Your task to perform on an android device: open chrome and create a bookmark for the current page Image 0: 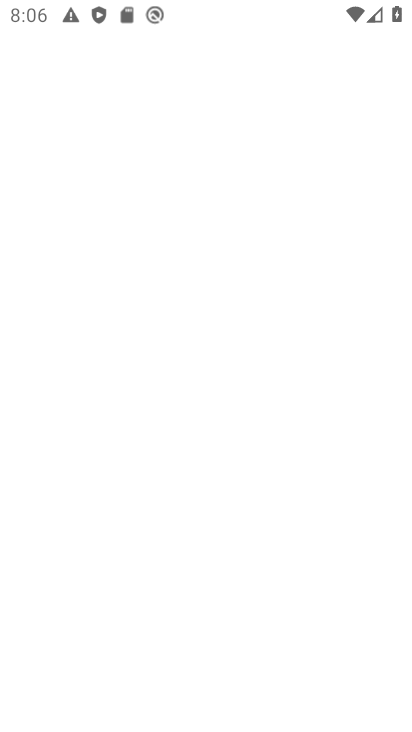
Step 0: press back button
Your task to perform on an android device: open chrome and create a bookmark for the current page Image 1: 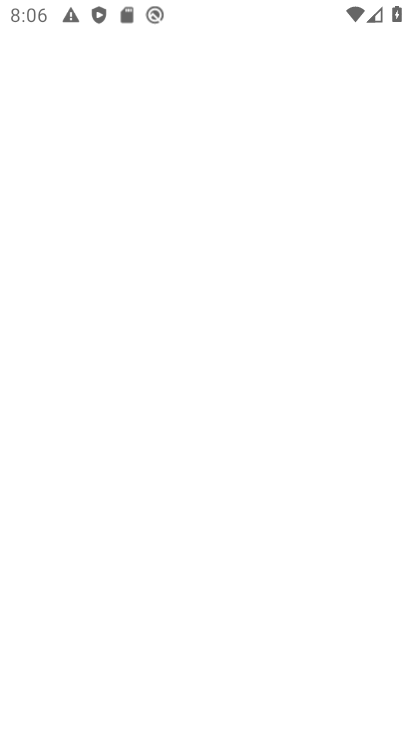
Step 1: click (123, 174)
Your task to perform on an android device: open chrome and create a bookmark for the current page Image 2: 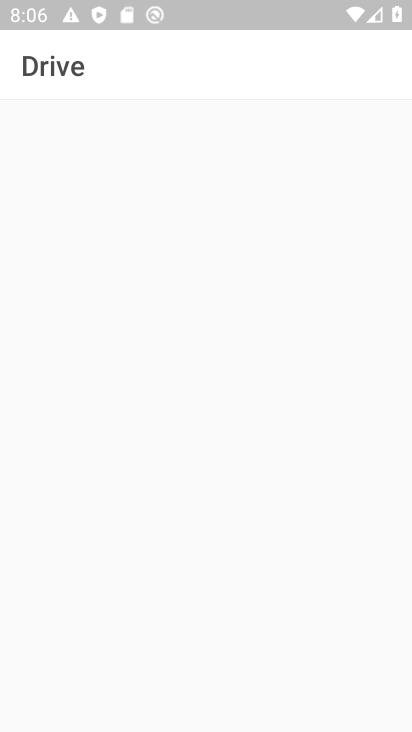
Step 2: press back button
Your task to perform on an android device: open chrome and create a bookmark for the current page Image 3: 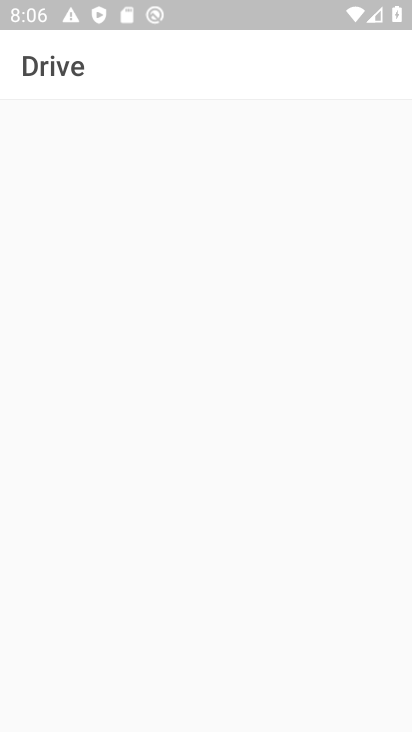
Step 3: press home button
Your task to perform on an android device: open chrome and create a bookmark for the current page Image 4: 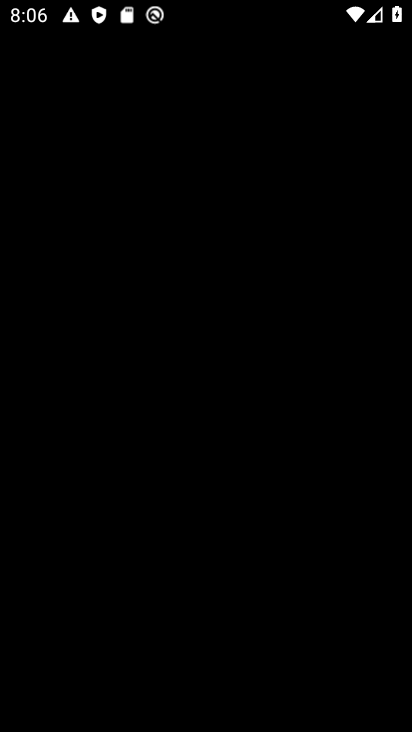
Step 4: press back button
Your task to perform on an android device: open chrome and create a bookmark for the current page Image 5: 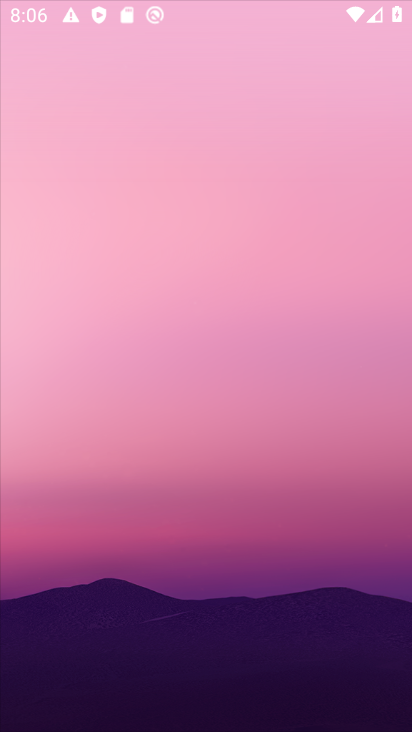
Step 5: press home button
Your task to perform on an android device: open chrome and create a bookmark for the current page Image 6: 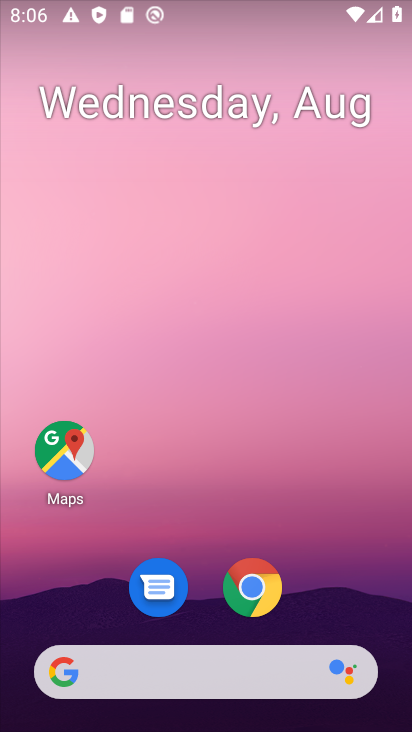
Step 6: drag from (181, 533) to (67, 97)
Your task to perform on an android device: open chrome and create a bookmark for the current page Image 7: 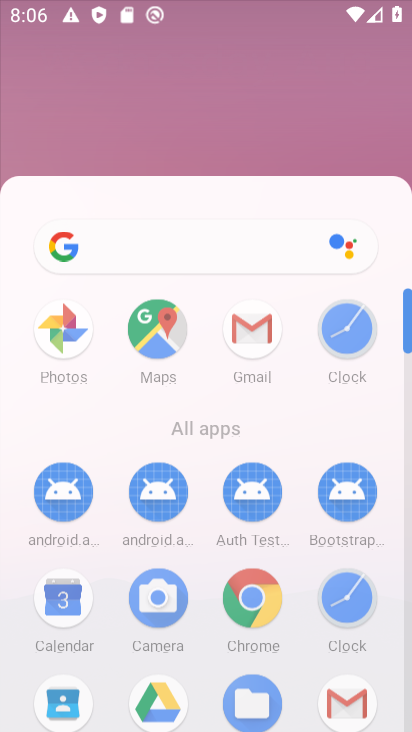
Step 7: drag from (156, 557) to (66, 95)
Your task to perform on an android device: open chrome and create a bookmark for the current page Image 8: 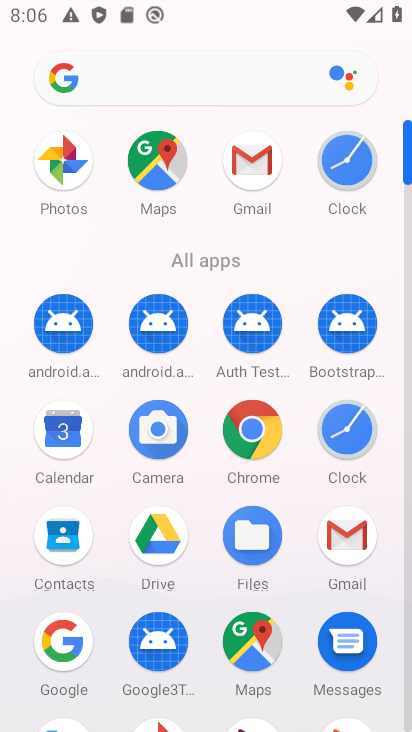
Step 8: drag from (157, 595) to (123, 197)
Your task to perform on an android device: open chrome and create a bookmark for the current page Image 9: 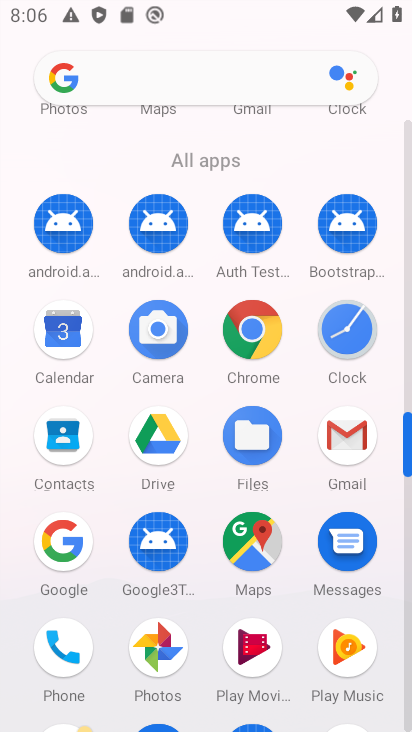
Step 9: click (260, 328)
Your task to perform on an android device: open chrome and create a bookmark for the current page Image 10: 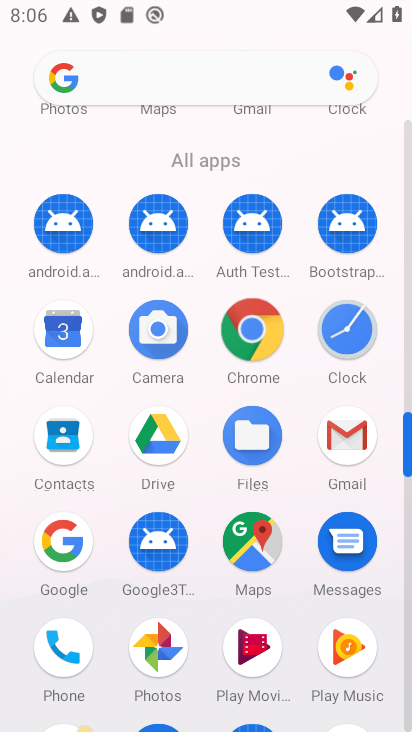
Step 10: click (260, 328)
Your task to perform on an android device: open chrome and create a bookmark for the current page Image 11: 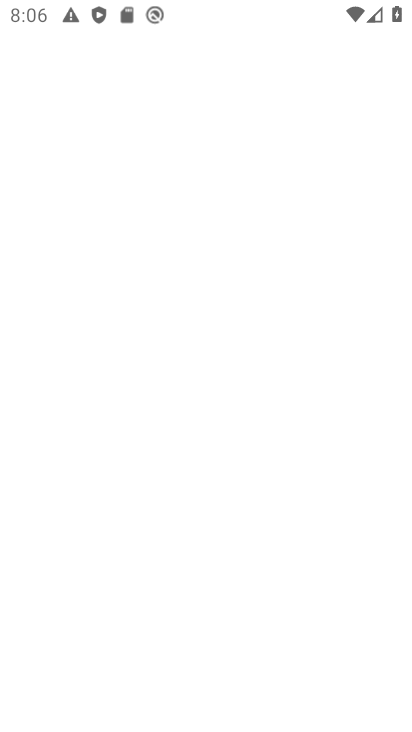
Step 11: click (260, 328)
Your task to perform on an android device: open chrome and create a bookmark for the current page Image 12: 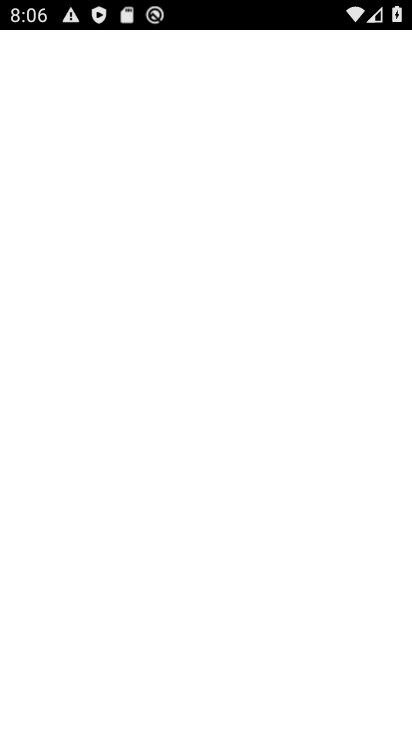
Step 12: click (260, 328)
Your task to perform on an android device: open chrome and create a bookmark for the current page Image 13: 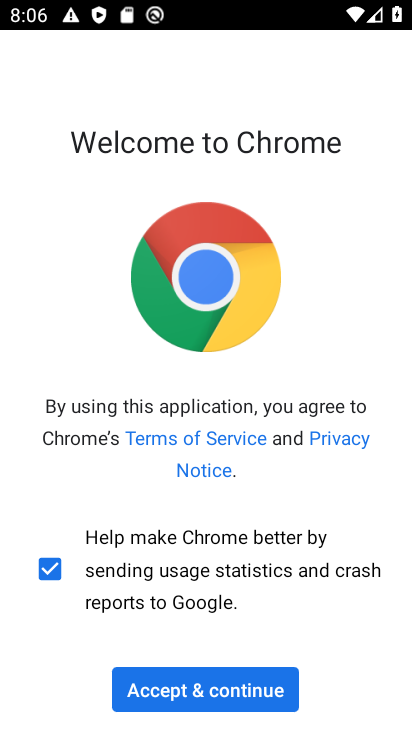
Step 13: click (214, 680)
Your task to perform on an android device: open chrome and create a bookmark for the current page Image 14: 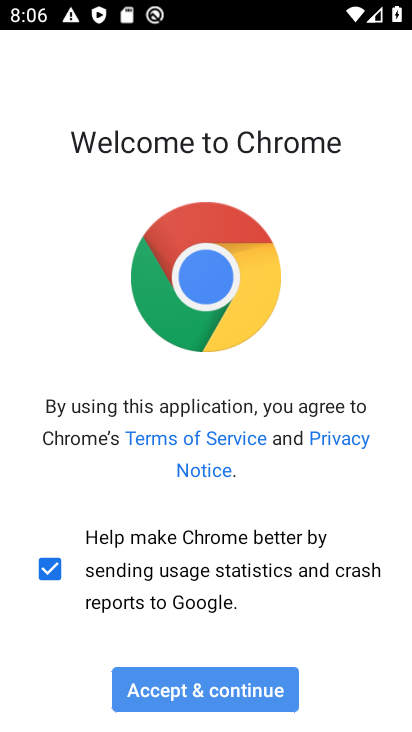
Step 14: click (214, 680)
Your task to perform on an android device: open chrome and create a bookmark for the current page Image 15: 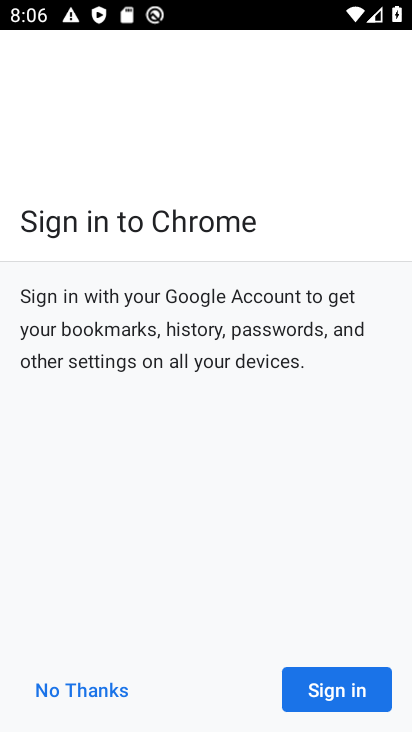
Step 15: click (214, 680)
Your task to perform on an android device: open chrome and create a bookmark for the current page Image 16: 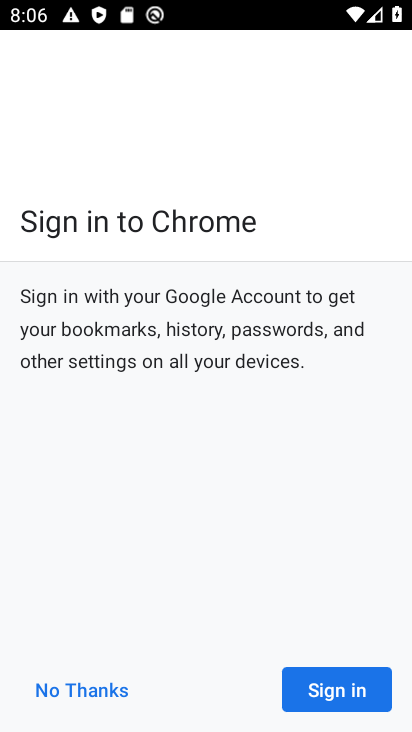
Step 16: click (214, 680)
Your task to perform on an android device: open chrome and create a bookmark for the current page Image 17: 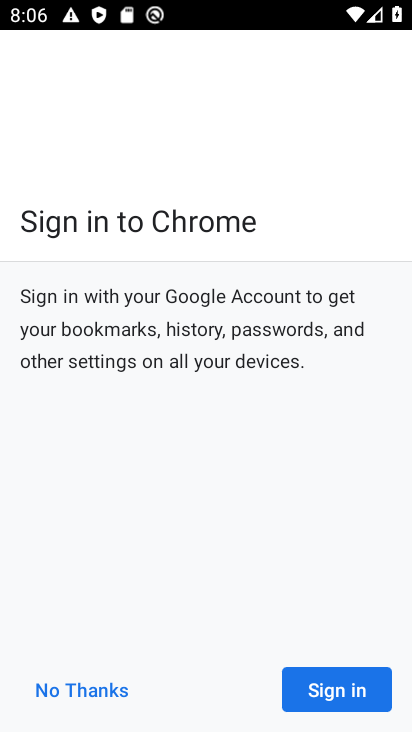
Step 17: click (90, 692)
Your task to perform on an android device: open chrome and create a bookmark for the current page Image 18: 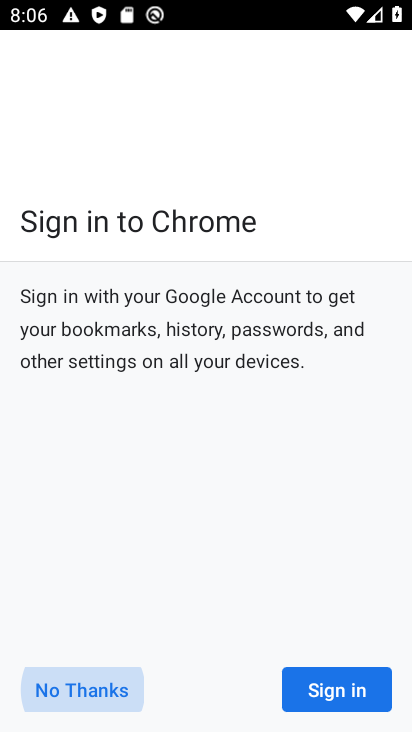
Step 18: click (89, 691)
Your task to perform on an android device: open chrome and create a bookmark for the current page Image 19: 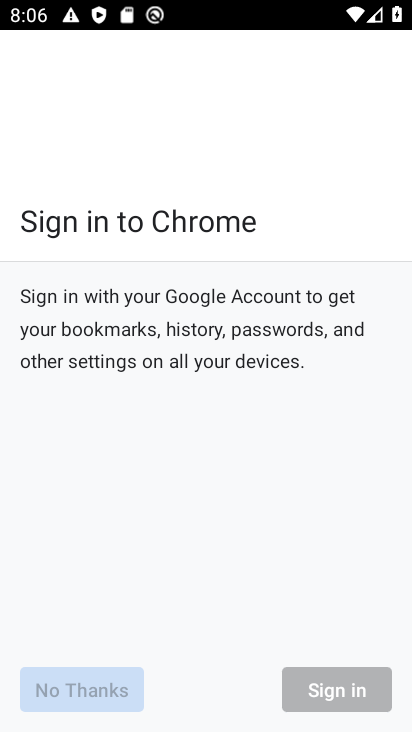
Step 19: click (89, 691)
Your task to perform on an android device: open chrome and create a bookmark for the current page Image 20: 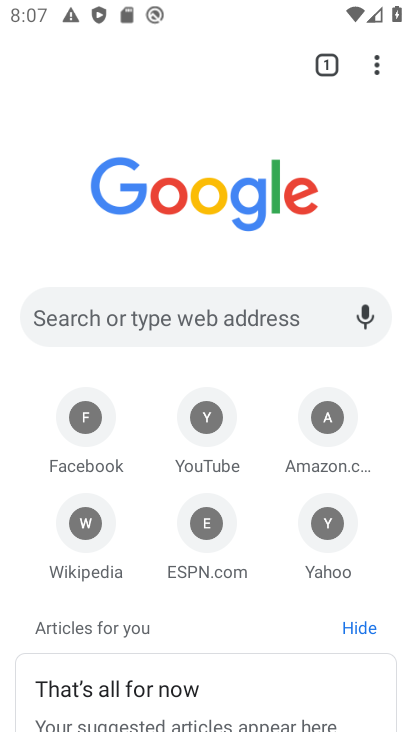
Step 20: drag from (376, 65) to (151, 245)
Your task to perform on an android device: open chrome and create a bookmark for the current page Image 21: 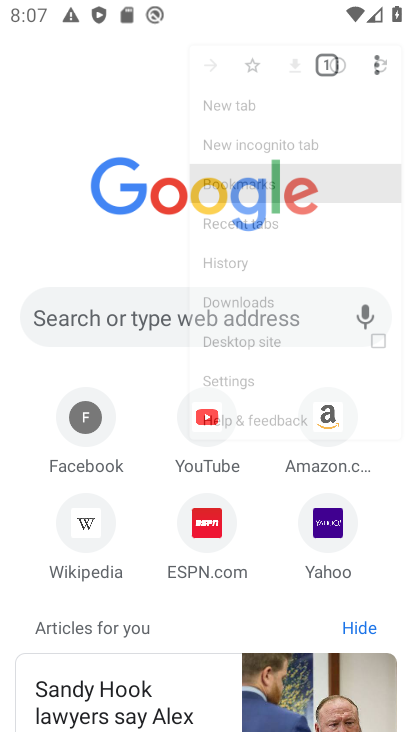
Step 21: click (151, 245)
Your task to perform on an android device: open chrome and create a bookmark for the current page Image 22: 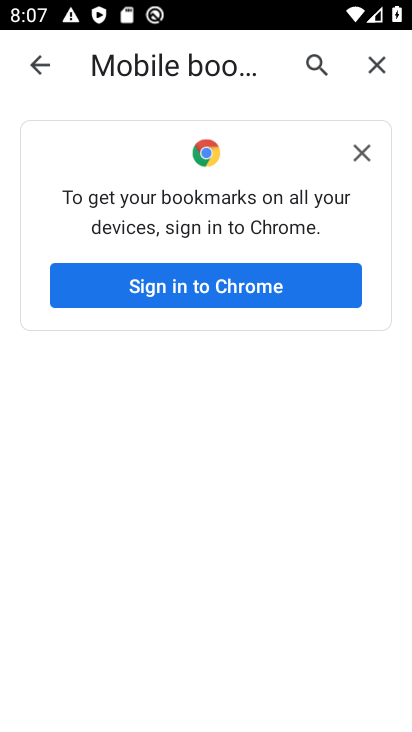
Step 22: click (356, 151)
Your task to perform on an android device: open chrome and create a bookmark for the current page Image 23: 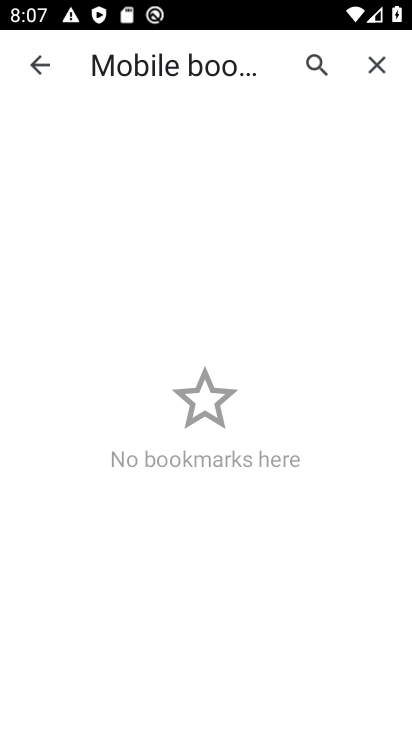
Step 23: click (43, 64)
Your task to perform on an android device: open chrome and create a bookmark for the current page Image 24: 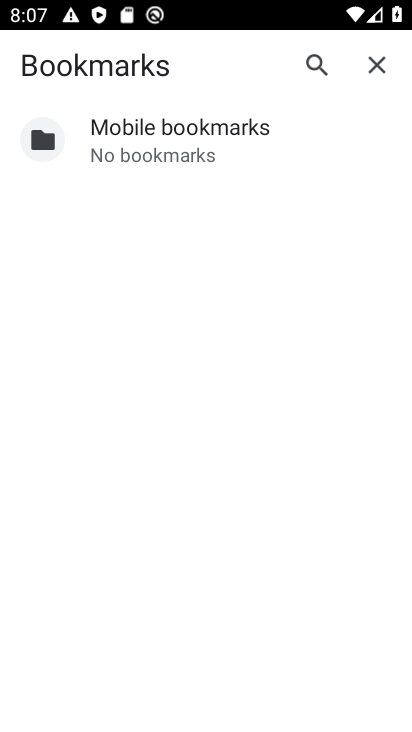
Step 24: click (360, 67)
Your task to perform on an android device: open chrome and create a bookmark for the current page Image 25: 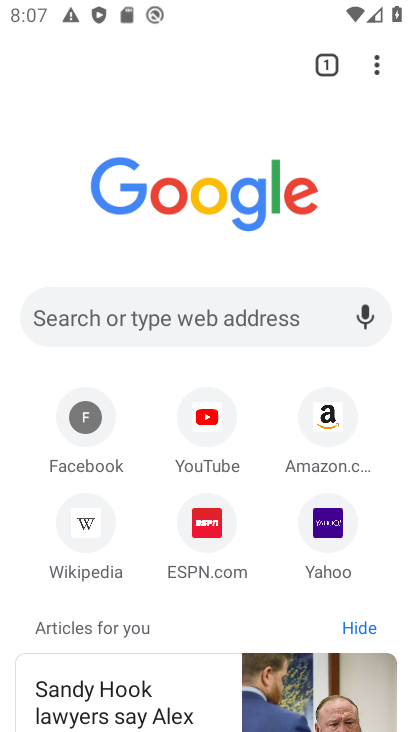
Step 25: drag from (375, 66) to (177, 67)
Your task to perform on an android device: open chrome and create a bookmark for the current page Image 26: 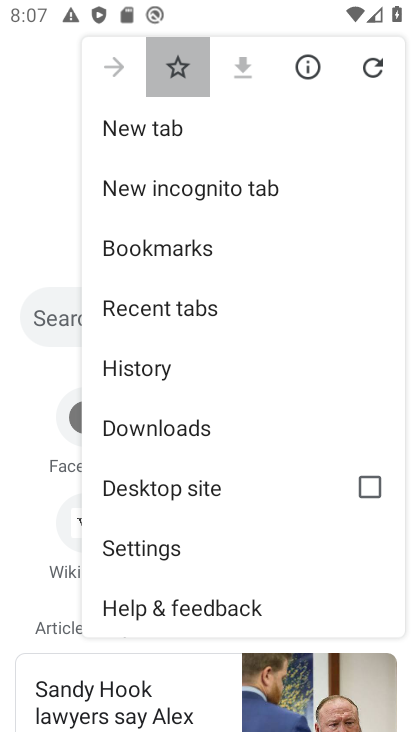
Step 26: click (176, 68)
Your task to perform on an android device: open chrome and create a bookmark for the current page Image 27: 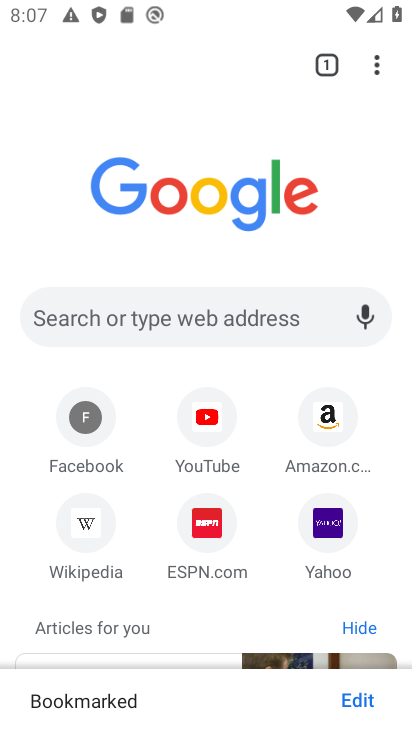
Step 27: task complete